Your task to perform on an android device: change your default location settings in chrome Image 0: 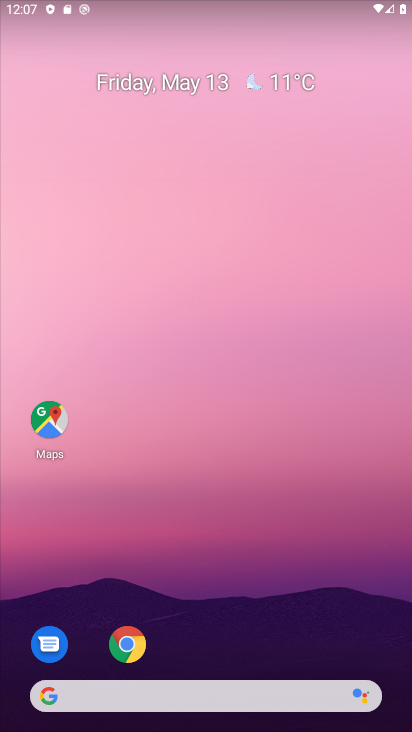
Step 0: drag from (206, 640) to (207, 218)
Your task to perform on an android device: change your default location settings in chrome Image 1: 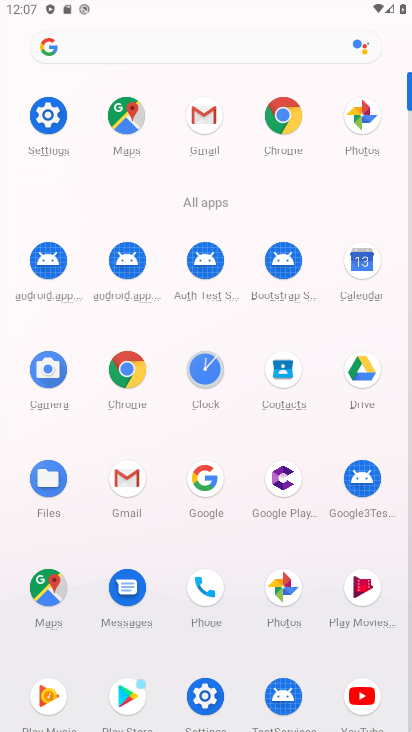
Step 1: click (122, 369)
Your task to perform on an android device: change your default location settings in chrome Image 2: 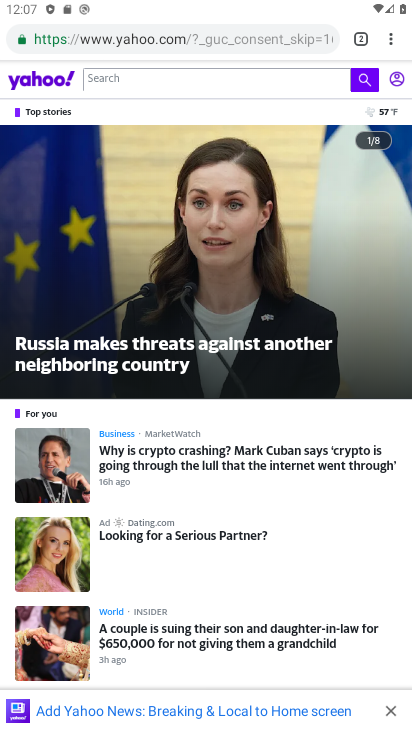
Step 2: click (392, 40)
Your task to perform on an android device: change your default location settings in chrome Image 3: 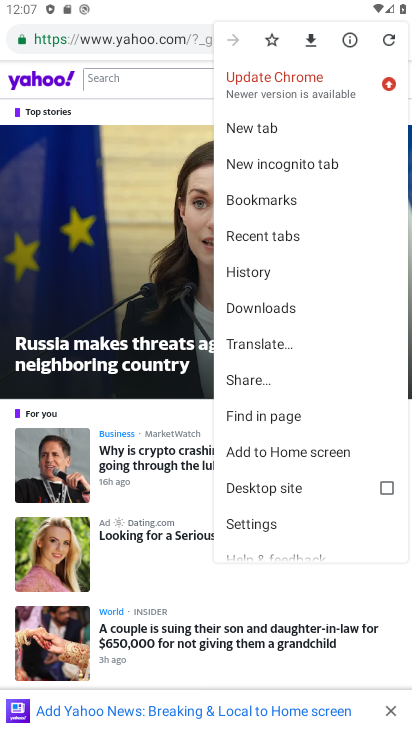
Step 3: click (254, 524)
Your task to perform on an android device: change your default location settings in chrome Image 4: 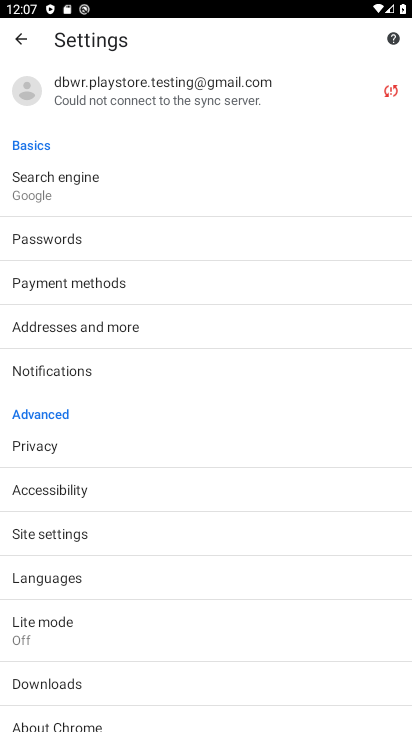
Step 4: drag from (115, 560) to (131, 229)
Your task to perform on an android device: change your default location settings in chrome Image 5: 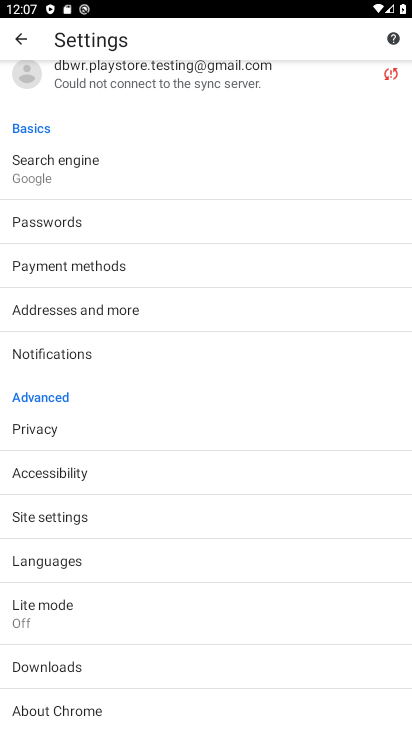
Step 5: click (53, 517)
Your task to perform on an android device: change your default location settings in chrome Image 6: 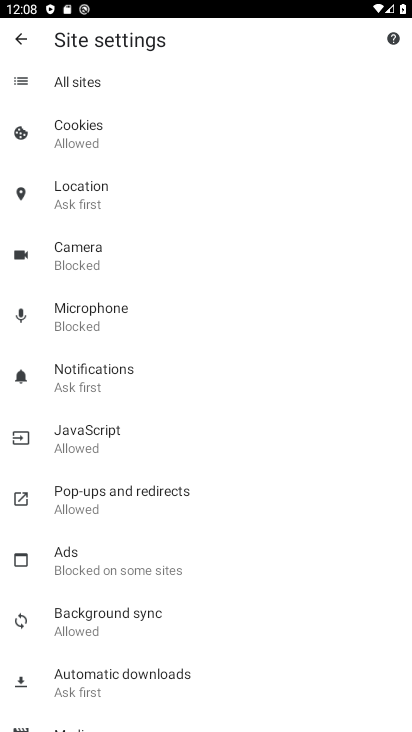
Step 6: click (84, 182)
Your task to perform on an android device: change your default location settings in chrome Image 7: 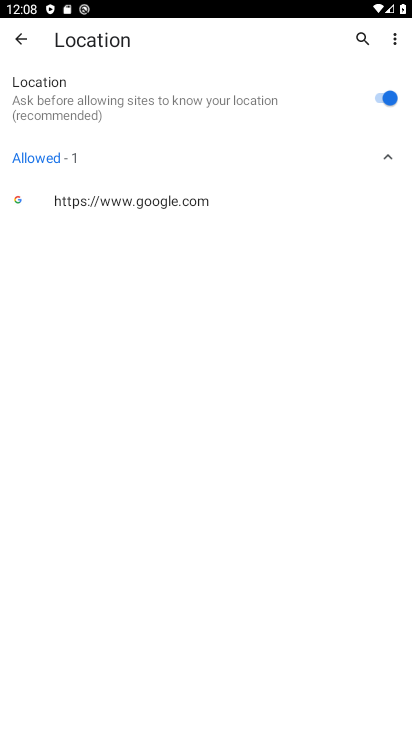
Step 7: click (381, 98)
Your task to perform on an android device: change your default location settings in chrome Image 8: 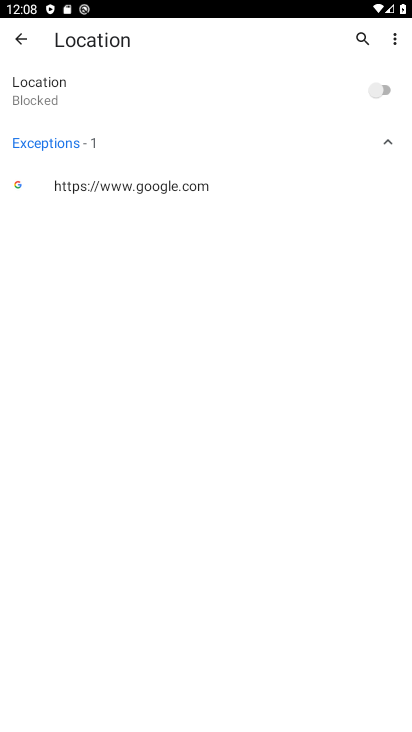
Step 8: task complete